Your task to perform on an android device: Go to settings Image 0: 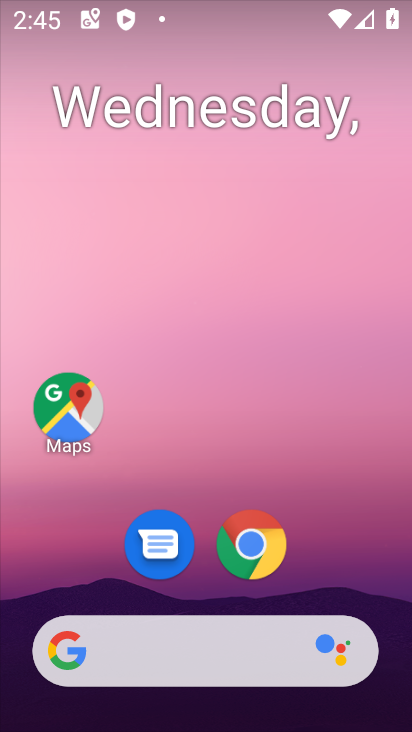
Step 0: drag from (366, 544) to (367, 169)
Your task to perform on an android device: Go to settings Image 1: 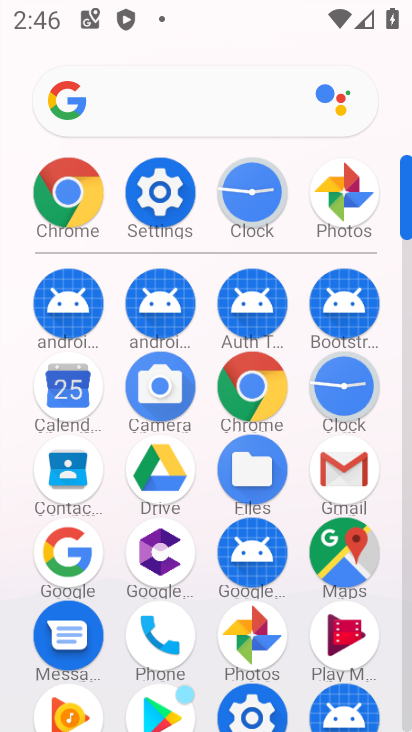
Step 1: click (164, 206)
Your task to perform on an android device: Go to settings Image 2: 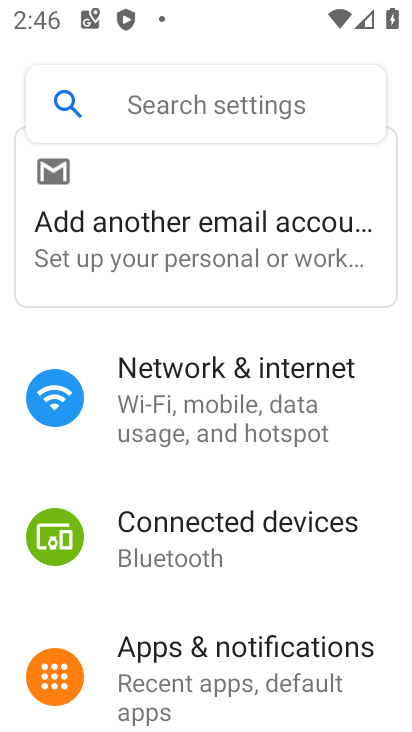
Step 2: task complete